Your task to perform on an android device: Open internet settings Image 0: 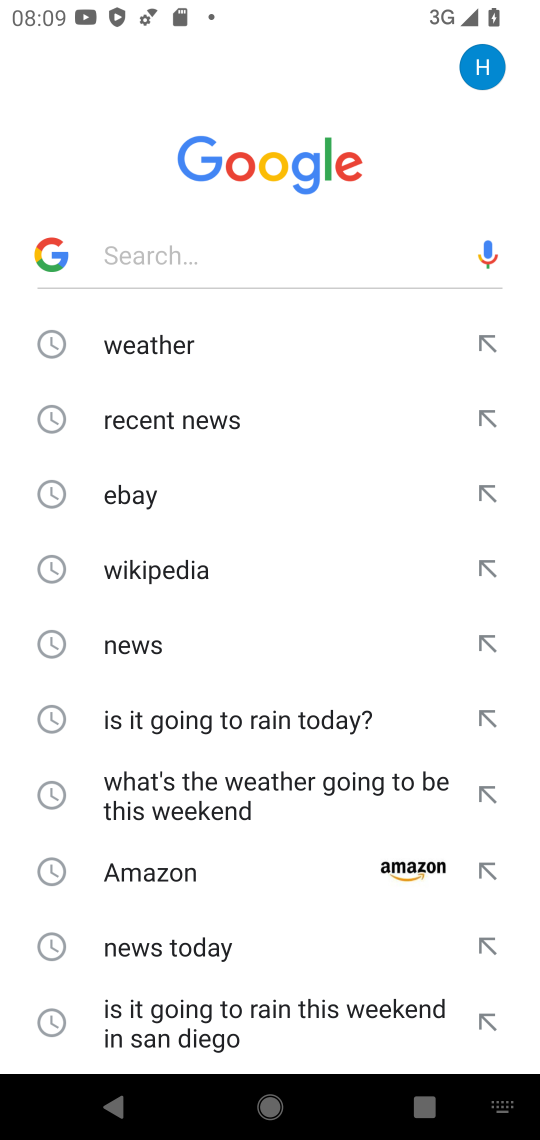
Step 0: press home button
Your task to perform on an android device: Open internet settings Image 1: 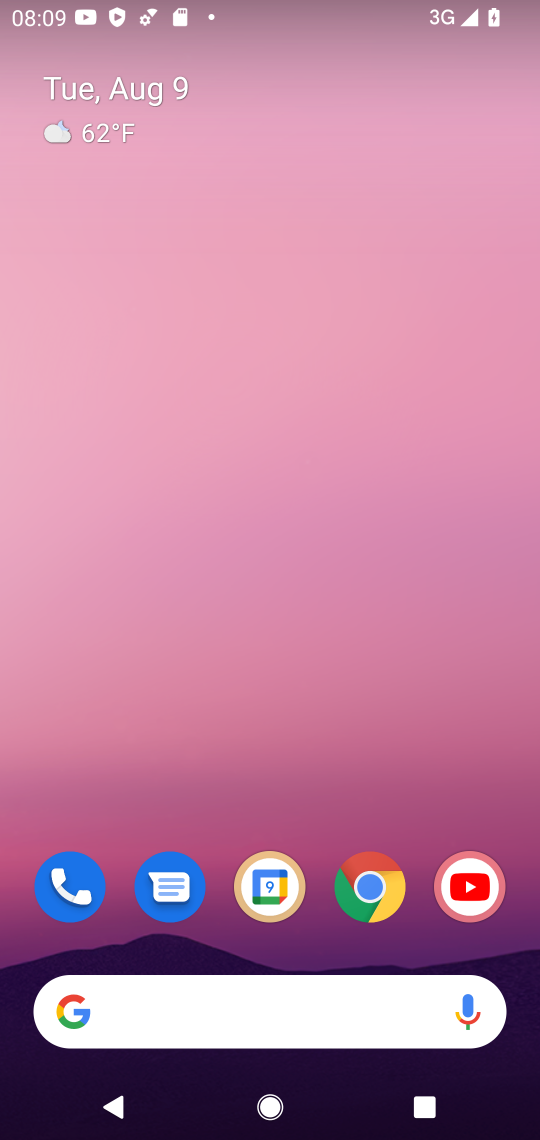
Step 1: drag from (365, 738) to (381, 0)
Your task to perform on an android device: Open internet settings Image 2: 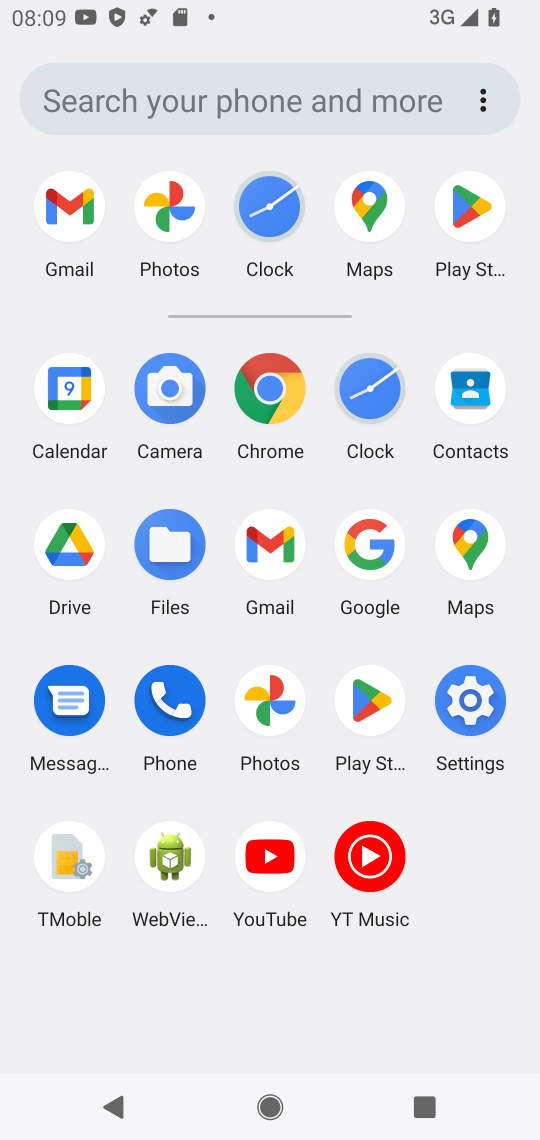
Step 2: click (464, 703)
Your task to perform on an android device: Open internet settings Image 3: 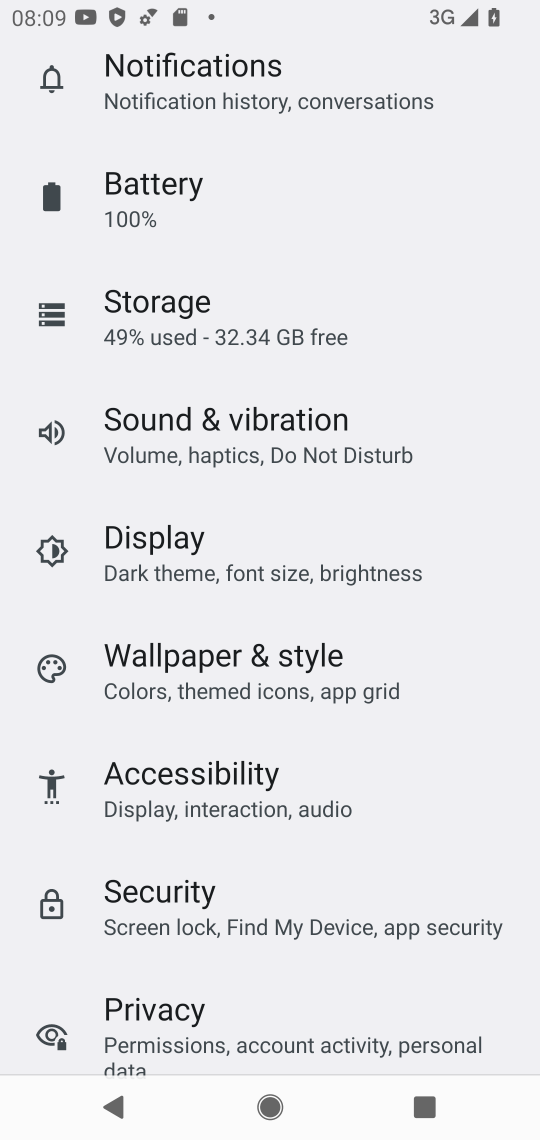
Step 3: drag from (340, 300) to (384, 974)
Your task to perform on an android device: Open internet settings Image 4: 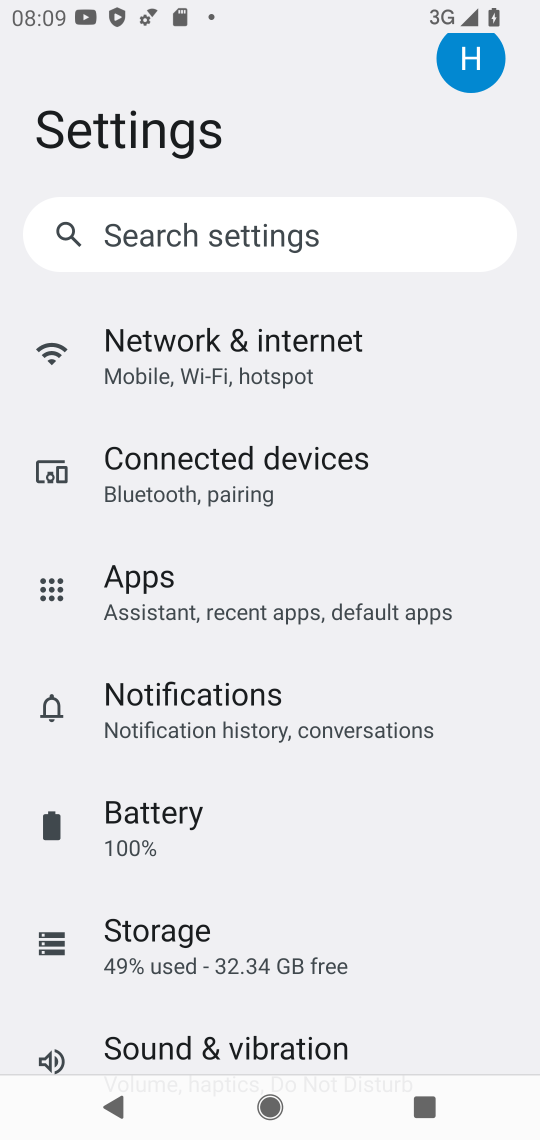
Step 4: click (317, 358)
Your task to perform on an android device: Open internet settings Image 5: 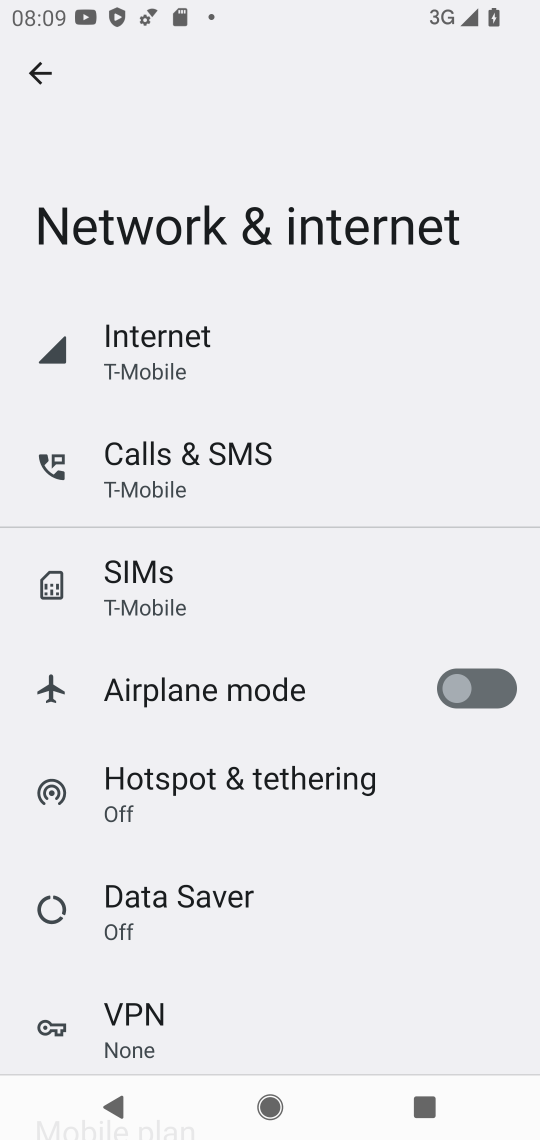
Step 5: task complete